Your task to perform on an android device: toggle airplane mode Image 0: 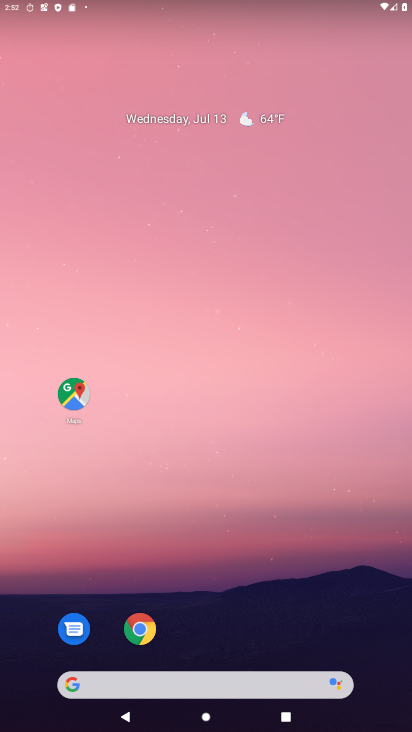
Step 0: drag from (201, 675) to (407, 64)
Your task to perform on an android device: toggle airplane mode Image 1: 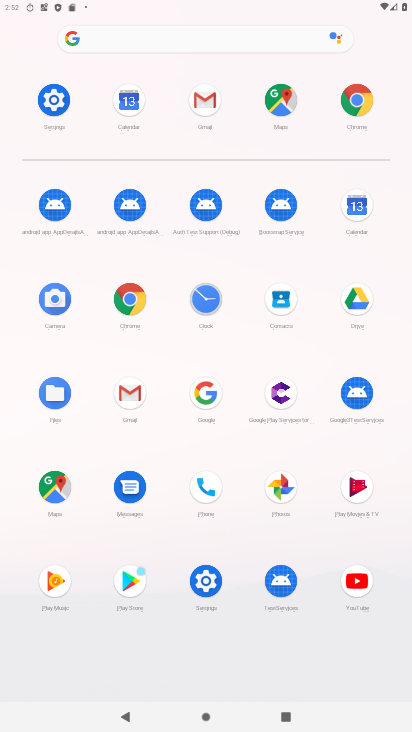
Step 1: drag from (249, 4) to (178, 675)
Your task to perform on an android device: toggle airplane mode Image 2: 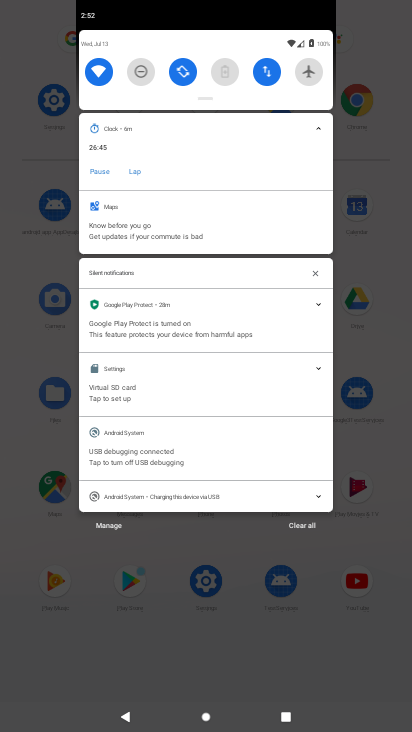
Step 2: click (311, 62)
Your task to perform on an android device: toggle airplane mode Image 3: 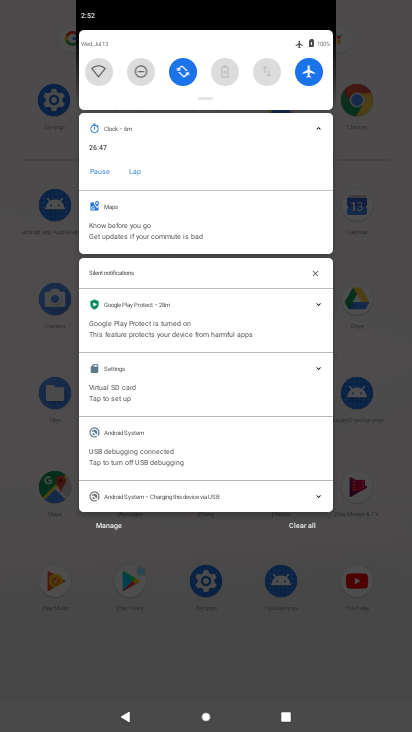
Step 3: task complete